Your task to perform on an android device: turn pop-ups off in chrome Image 0: 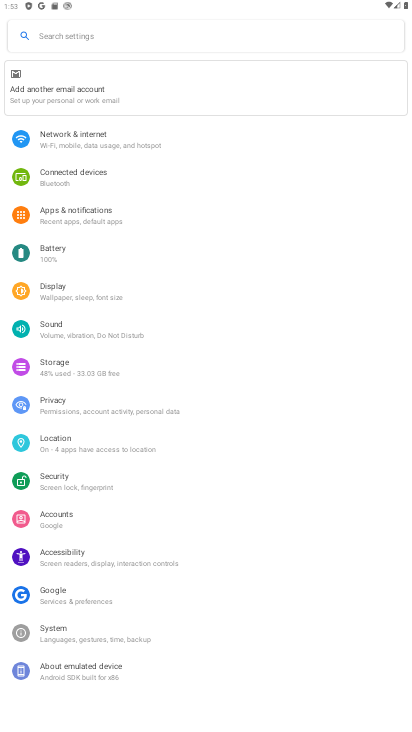
Step 0: press home button
Your task to perform on an android device: turn pop-ups off in chrome Image 1: 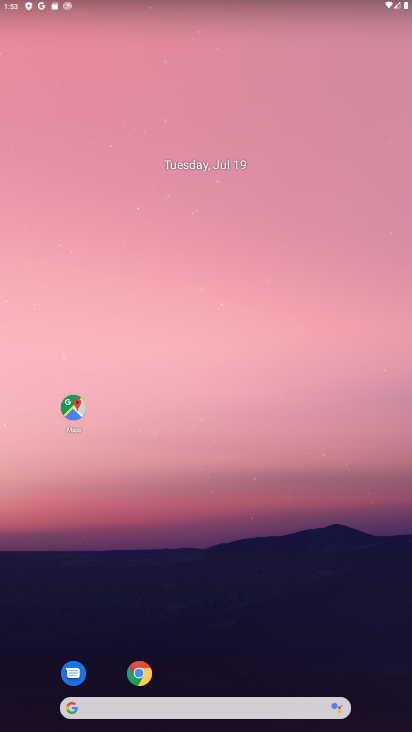
Step 1: click (142, 661)
Your task to perform on an android device: turn pop-ups off in chrome Image 2: 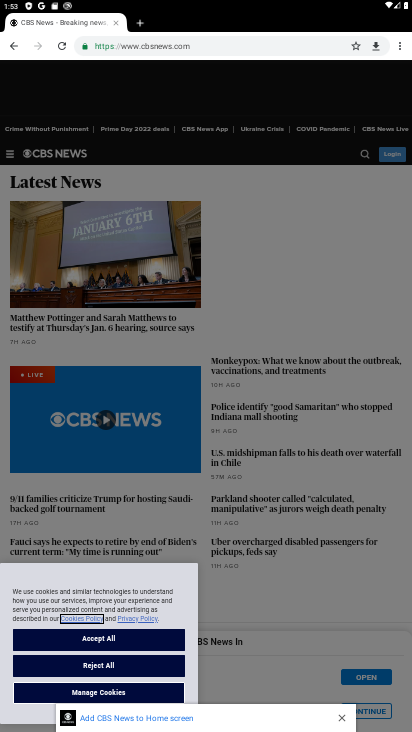
Step 2: click (398, 49)
Your task to perform on an android device: turn pop-ups off in chrome Image 3: 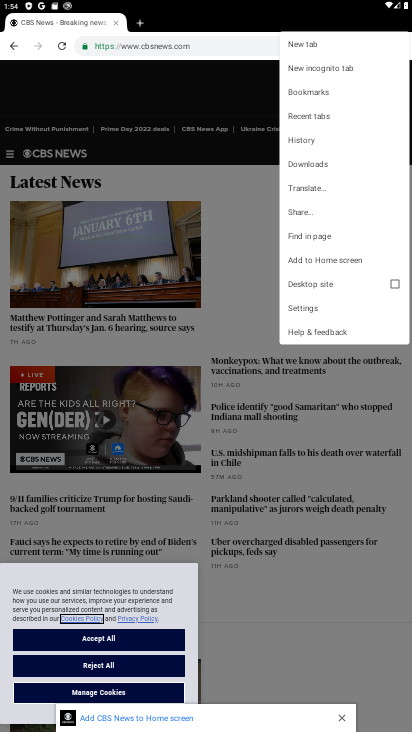
Step 3: click (324, 306)
Your task to perform on an android device: turn pop-ups off in chrome Image 4: 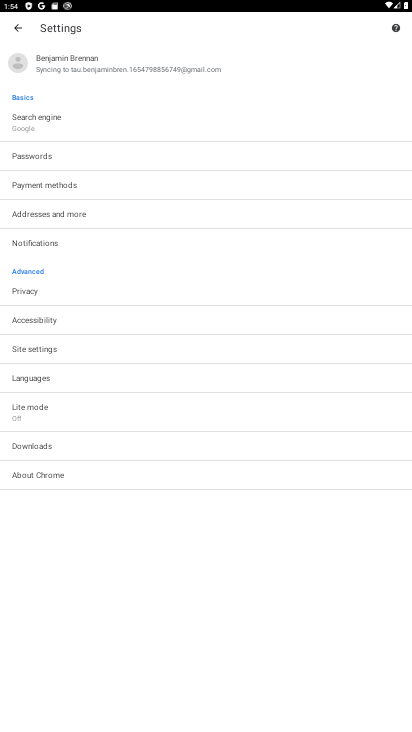
Step 4: click (59, 348)
Your task to perform on an android device: turn pop-ups off in chrome Image 5: 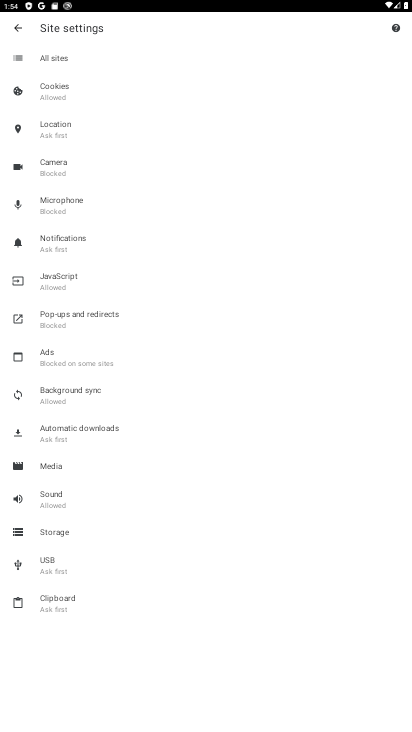
Step 5: click (108, 318)
Your task to perform on an android device: turn pop-ups off in chrome Image 6: 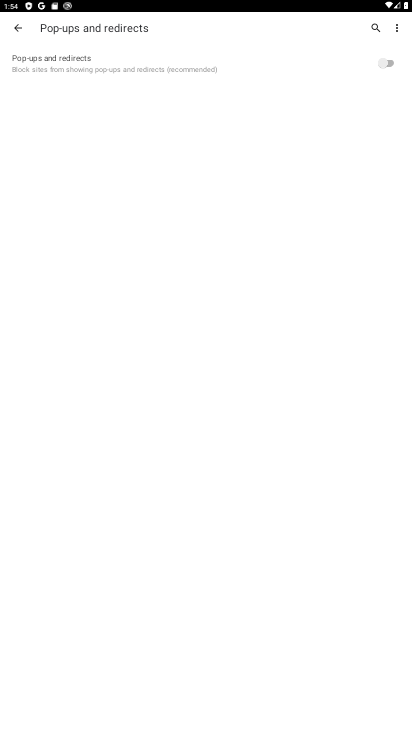
Step 6: task complete